Your task to perform on an android device: turn pop-ups on in chrome Image 0: 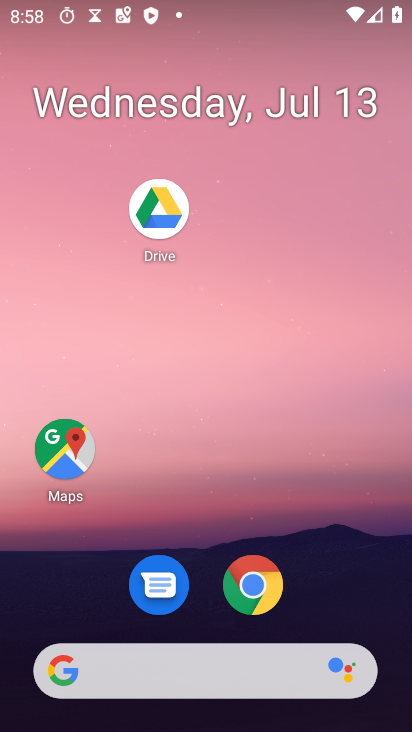
Step 0: click (271, 587)
Your task to perform on an android device: turn pop-ups on in chrome Image 1: 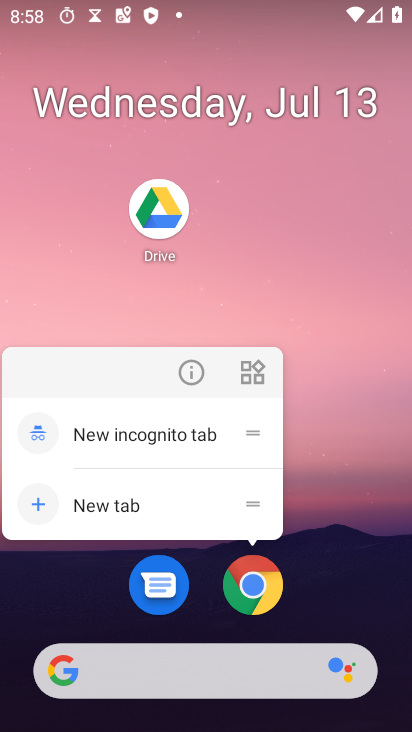
Step 1: click (258, 592)
Your task to perform on an android device: turn pop-ups on in chrome Image 2: 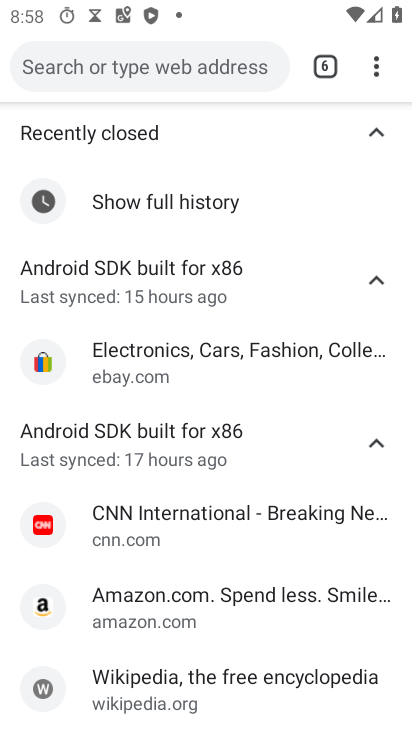
Step 2: drag from (382, 62) to (212, 542)
Your task to perform on an android device: turn pop-ups on in chrome Image 3: 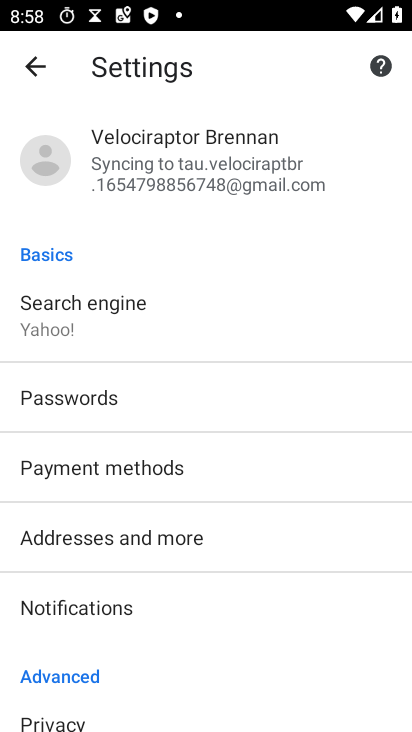
Step 3: drag from (227, 578) to (384, 161)
Your task to perform on an android device: turn pop-ups on in chrome Image 4: 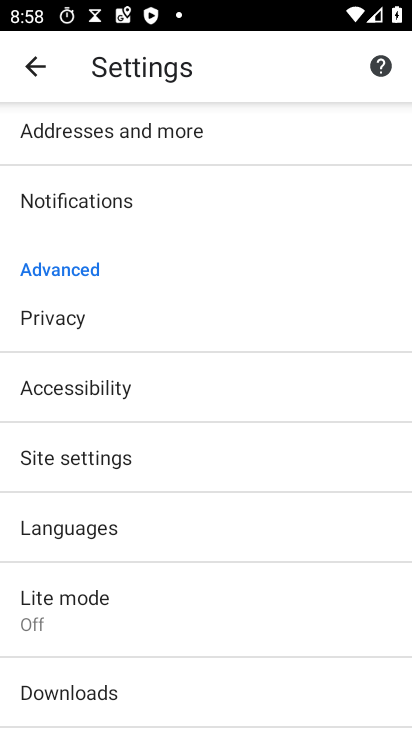
Step 4: click (138, 467)
Your task to perform on an android device: turn pop-ups on in chrome Image 5: 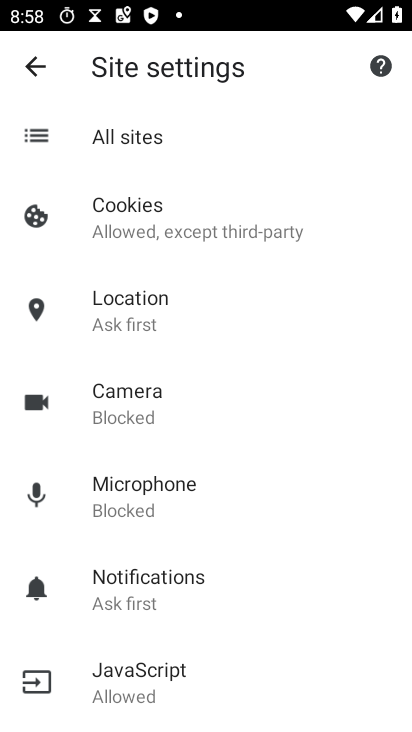
Step 5: drag from (268, 622) to (407, 234)
Your task to perform on an android device: turn pop-ups on in chrome Image 6: 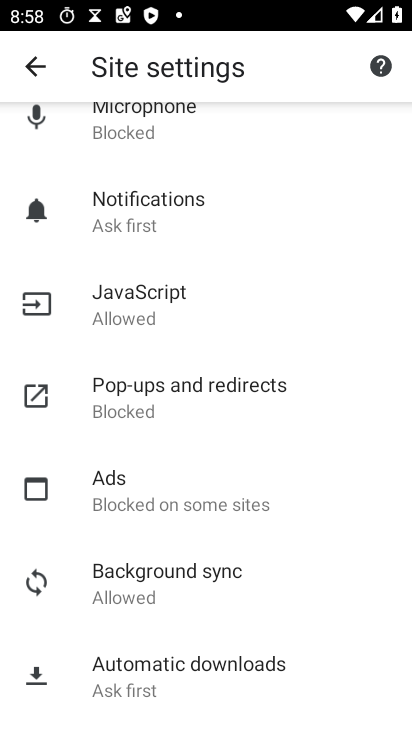
Step 6: click (227, 380)
Your task to perform on an android device: turn pop-ups on in chrome Image 7: 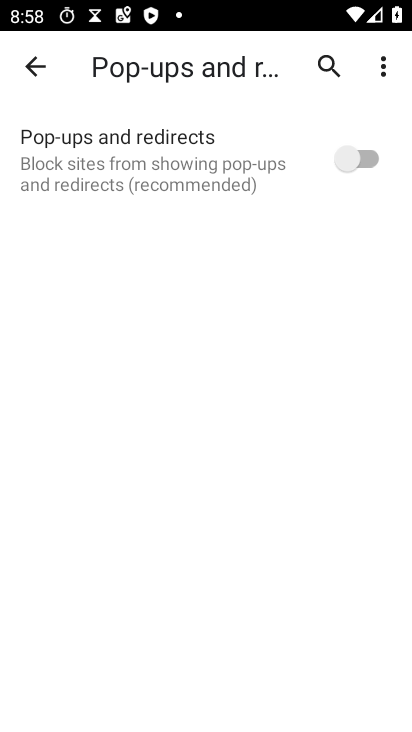
Step 7: click (371, 162)
Your task to perform on an android device: turn pop-ups on in chrome Image 8: 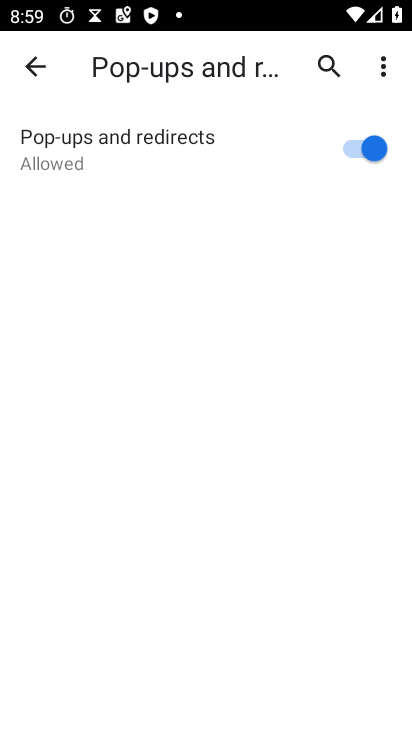
Step 8: task complete